Your task to perform on an android device: Go to ESPN.com Image 0: 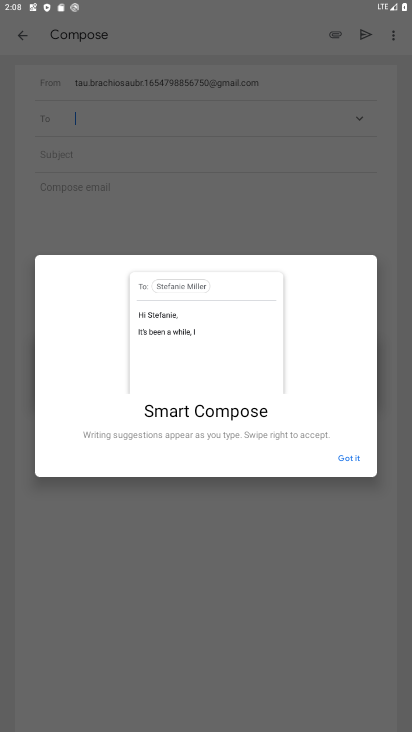
Step 0: press home button
Your task to perform on an android device: Go to ESPN.com Image 1: 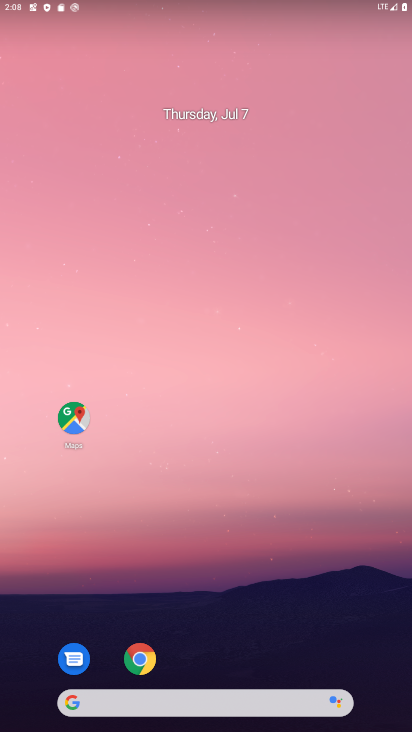
Step 1: click (142, 660)
Your task to perform on an android device: Go to ESPN.com Image 2: 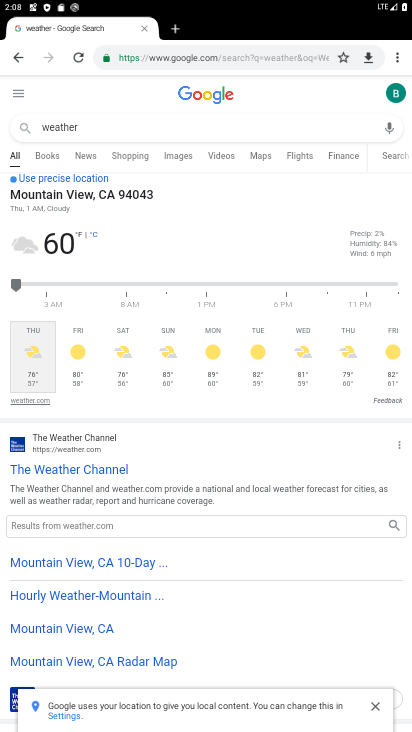
Step 2: click (244, 64)
Your task to perform on an android device: Go to ESPN.com Image 3: 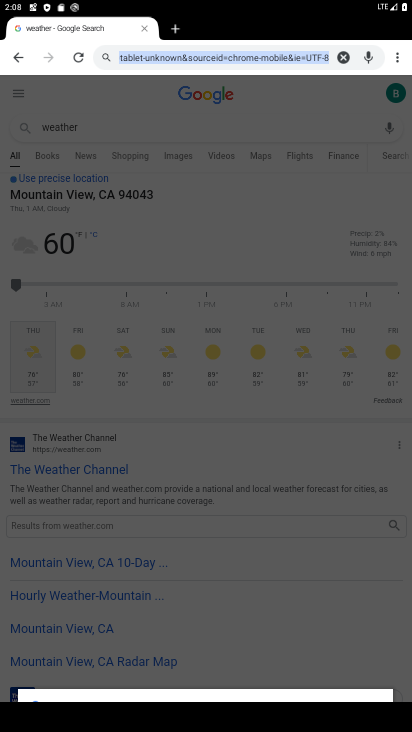
Step 3: type "ESPN.com"
Your task to perform on an android device: Go to ESPN.com Image 4: 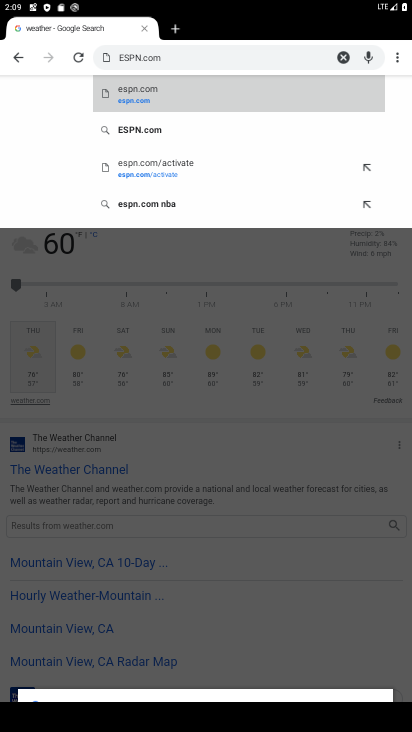
Step 4: click (159, 135)
Your task to perform on an android device: Go to ESPN.com Image 5: 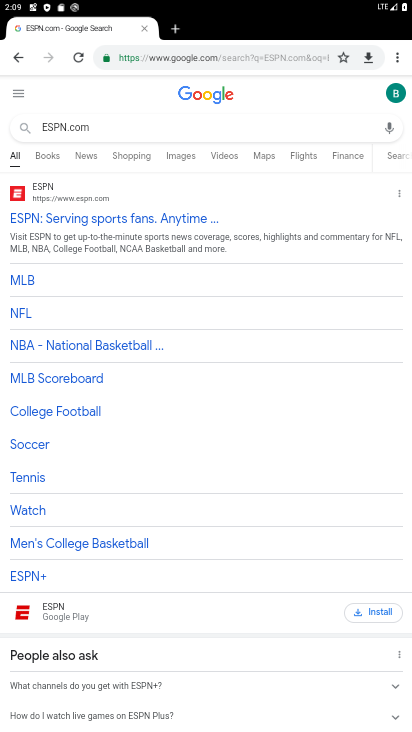
Step 5: click (38, 205)
Your task to perform on an android device: Go to ESPN.com Image 6: 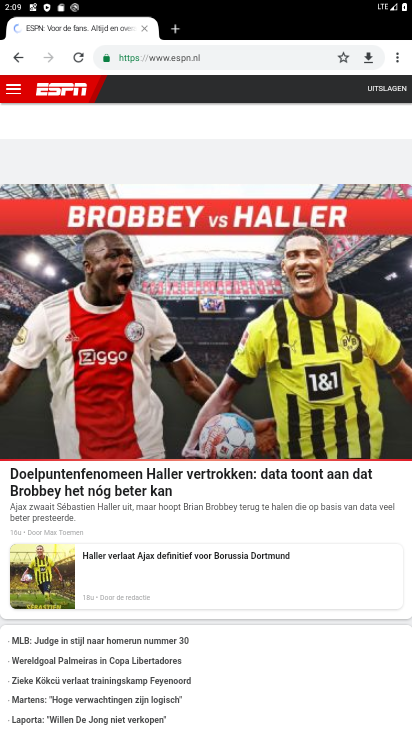
Step 6: task complete